Your task to perform on an android device: What's on my calendar today? Image 0: 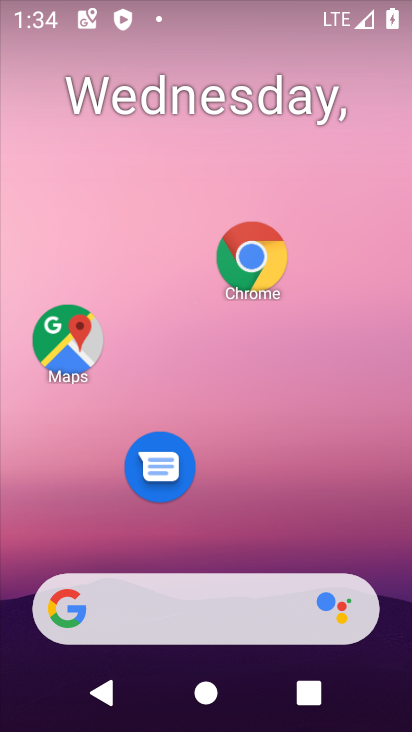
Step 0: drag from (301, 503) to (345, 105)
Your task to perform on an android device: What's on my calendar today? Image 1: 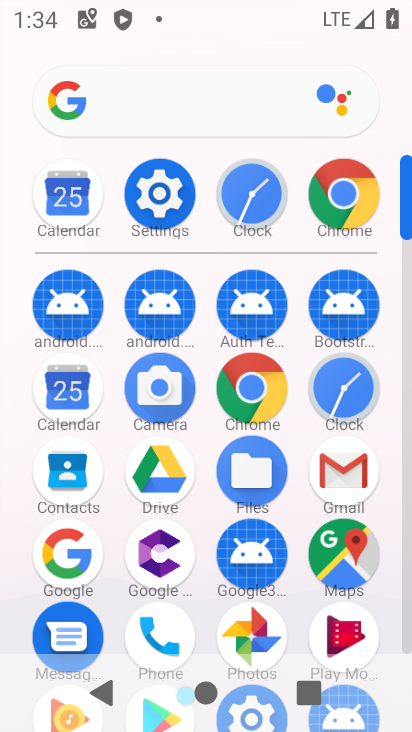
Step 1: click (77, 198)
Your task to perform on an android device: What's on my calendar today? Image 2: 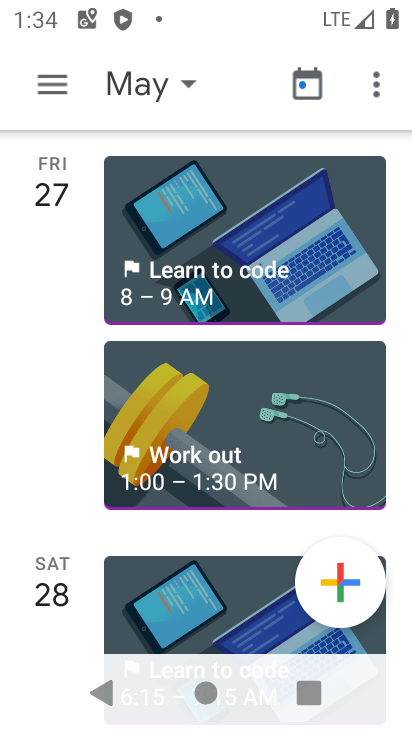
Step 2: click (173, 77)
Your task to perform on an android device: What's on my calendar today? Image 3: 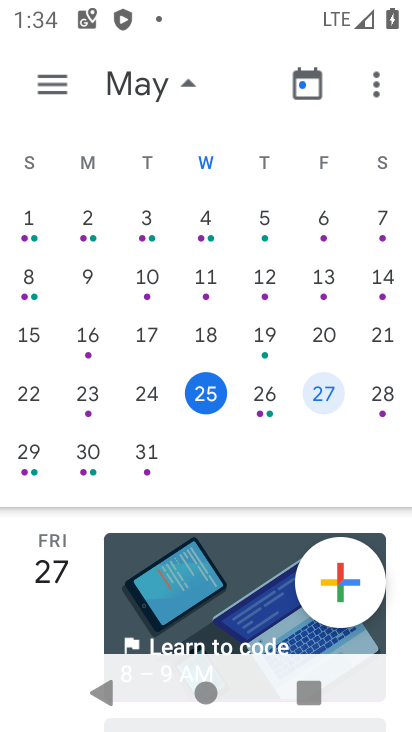
Step 3: click (191, 388)
Your task to perform on an android device: What's on my calendar today? Image 4: 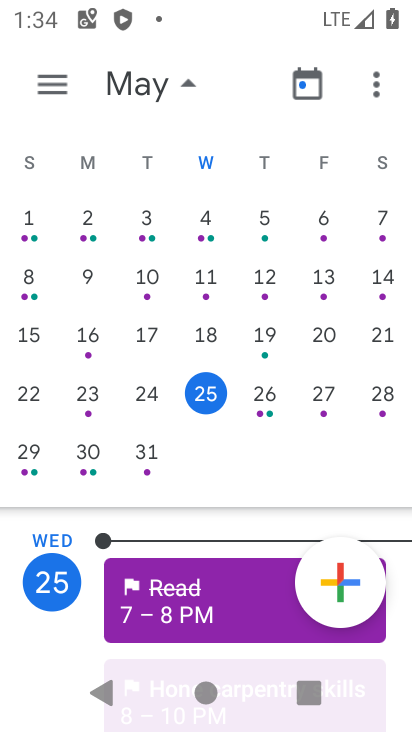
Step 4: drag from (243, 593) to (253, 170)
Your task to perform on an android device: What's on my calendar today? Image 5: 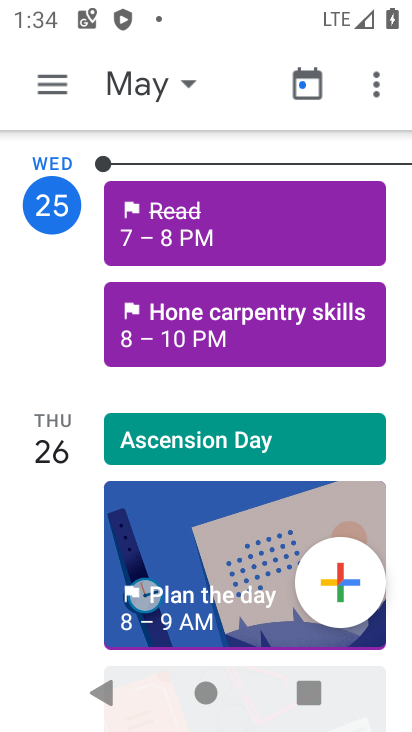
Step 5: click (55, 74)
Your task to perform on an android device: What's on my calendar today? Image 6: 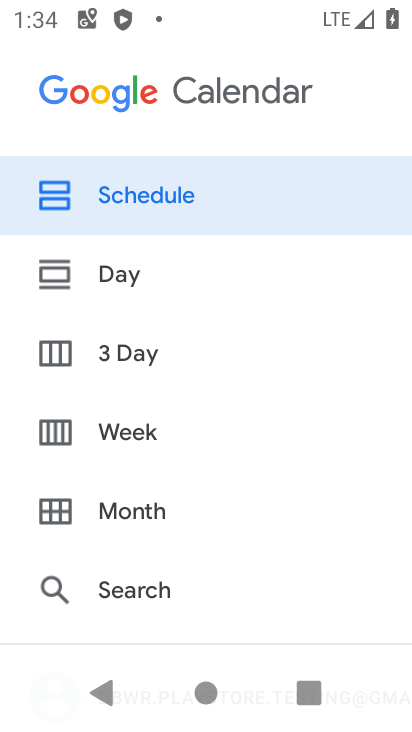
Step 6: click (127, 182)
Your task to perform on an android device: What's on my calendar today? Image 7: 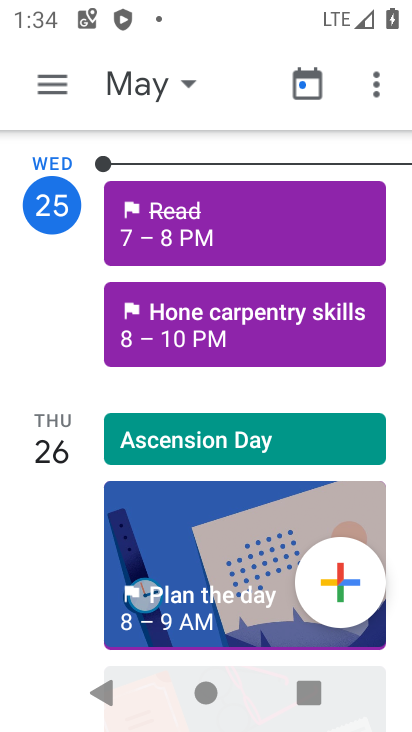
Step 7: task complete